Your task to perform on an android device: allow cookies in the chrome app Image 0: 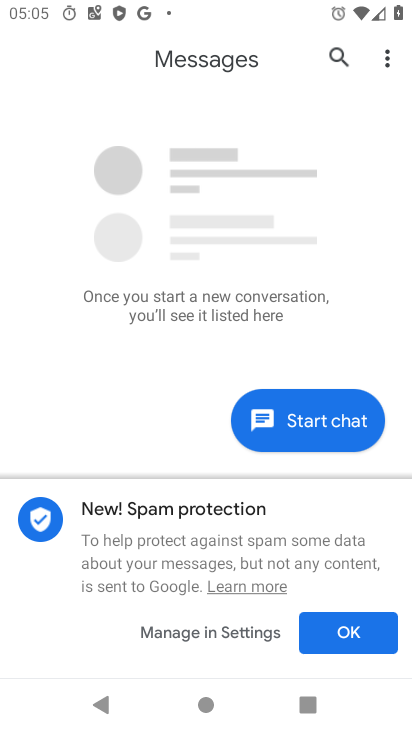
Step 0: press home button
Your task to perform on an android device: allow cookies in the chrome app Image 1: 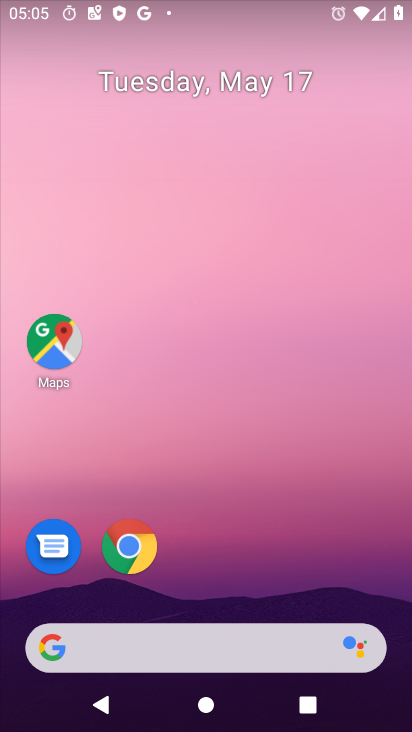
Step 1: click (126, 546)
Your task to perform on an android device: allow cookies in the chrome app Image 2: 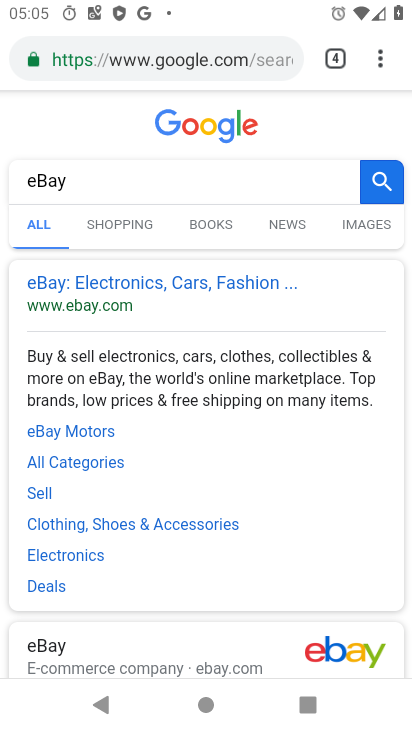
Step 2: click (377, 62)
Your task to perform on an android device: allow cookies in the chrome app Image 3: 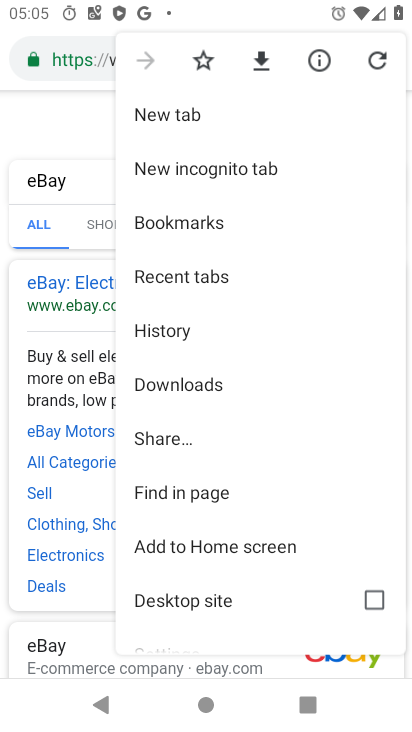
Step 3: drag from (344, 332) to (352, 243)
Your task to perform on an android device: allow cookies in the chrome app Image 4: 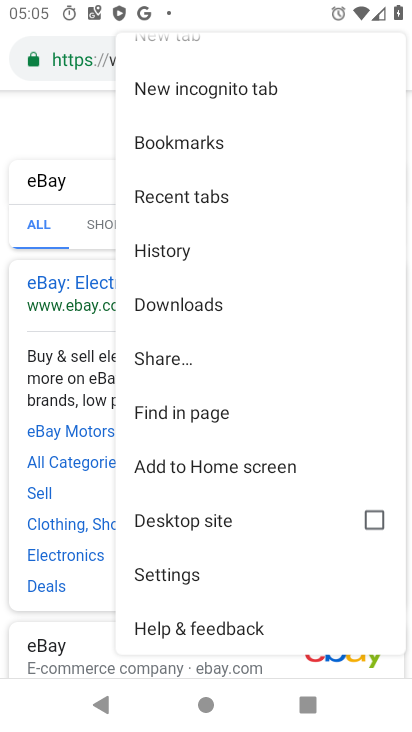
Step 4: click (173, 581)
Your task to perform on an android device: allow cookies in the chrome app Image 5: 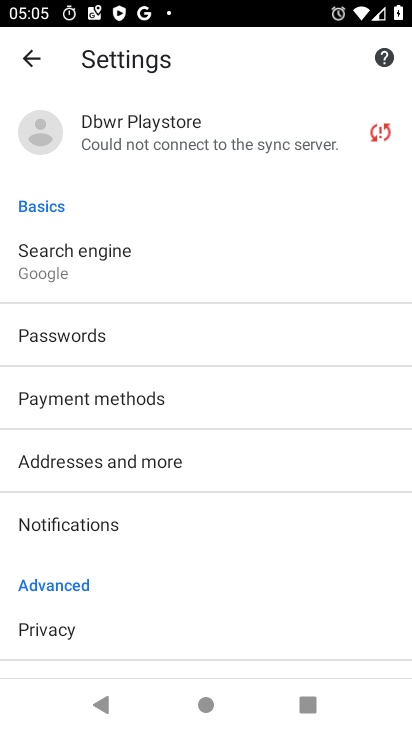
Step 5: drag from (229, 615) to (260, 417)
Your task to perform on an android device: allow cookies in the chrome app Image 6: 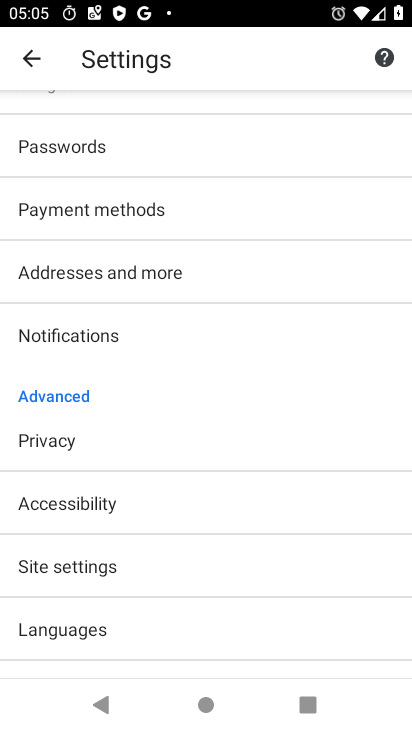
Step 6: click (69, 573)
Your task to perform on an android device: allow cookies in the chrome app Image 7: 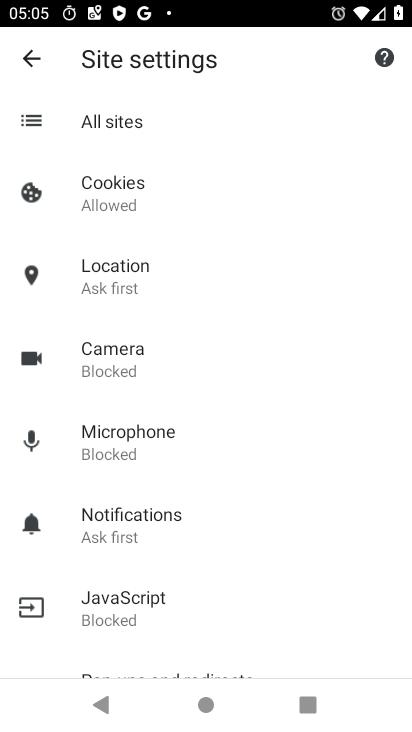
Step 7: click (106, 193)
Your task to perform on an android device: allow cookies in the chrome app Image 8: 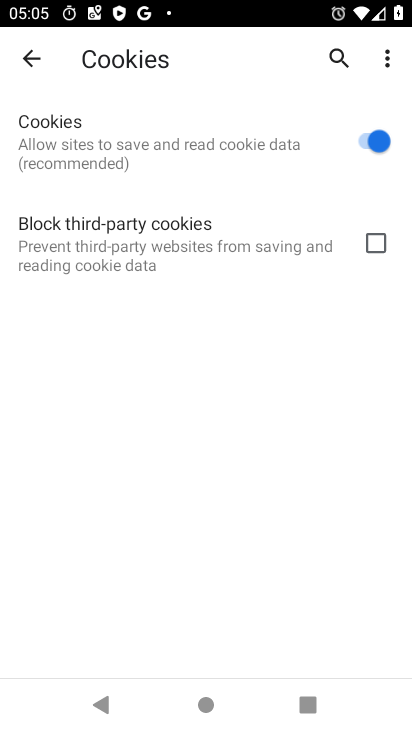
Step 8: task complete